Your task to perform on an android device: See recent photos Image 0: 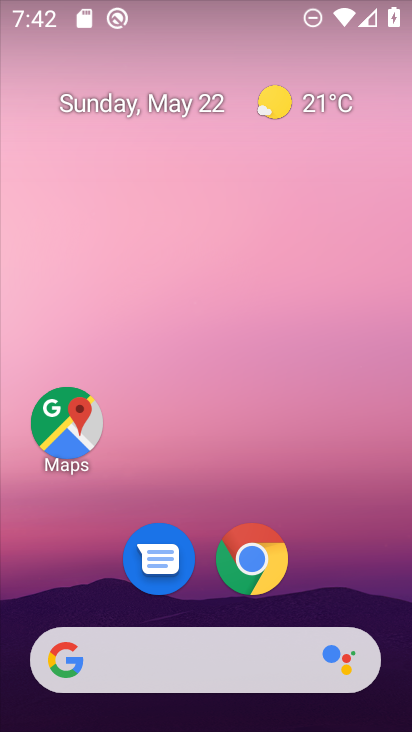
Step 0: press home button
Your task to perform on an android device: See recent photos Image 1: 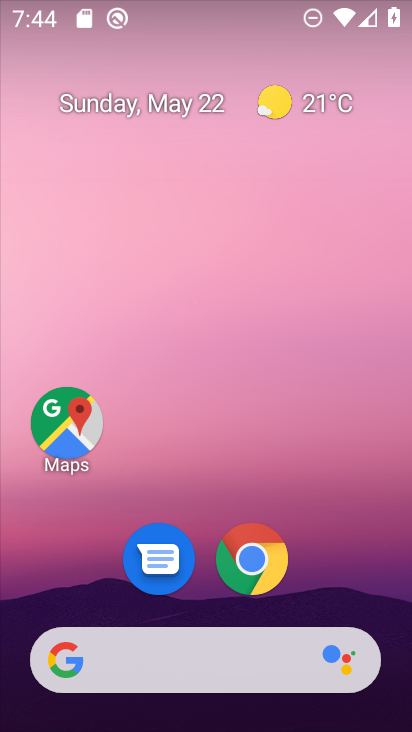
Step 1: drag from (288, 682) to (280, 354)
Your task to perform on an android device: See recent photos Image 2: 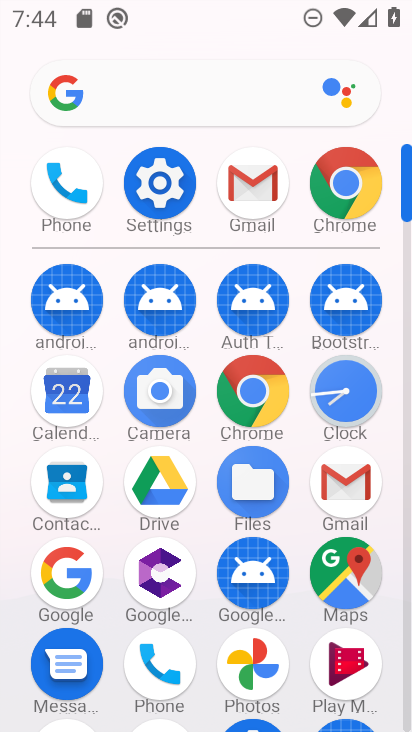
Step 2: click (254, 651)
Your task to perform on an android device: See recent photos Image 3: 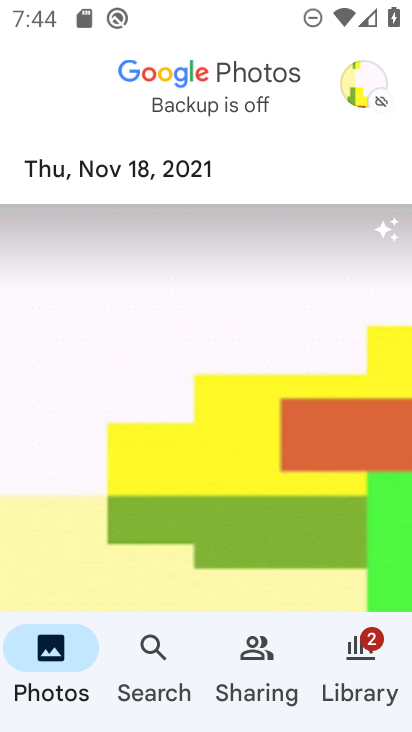
Step 3: click (82, 657)
Your task to perform on an android device: See recent photos Image 4: 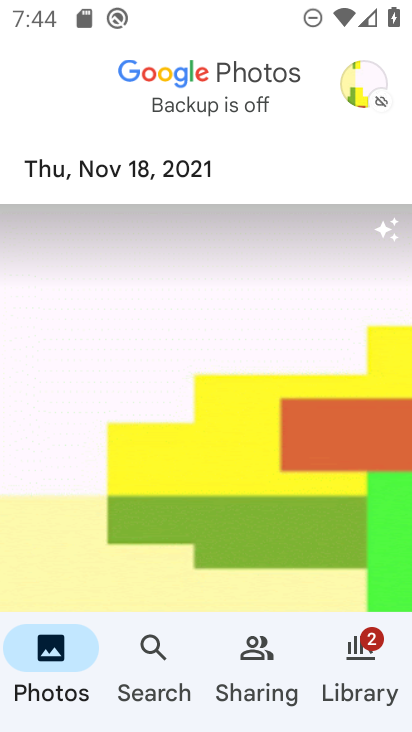
Step 4: task complete